Your task to perform on an android device: delete a single message in the gmail app Image 0: 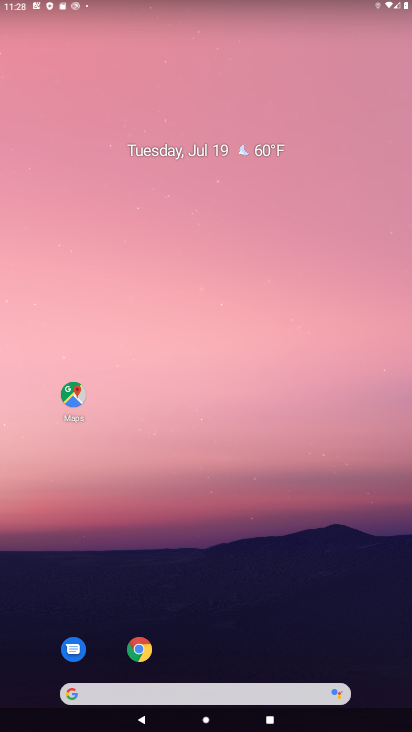
Step 0: drag from (195, 702) to (241, 166)
Your task to perform on an android device: delete a single message in the gmail app Image 1: 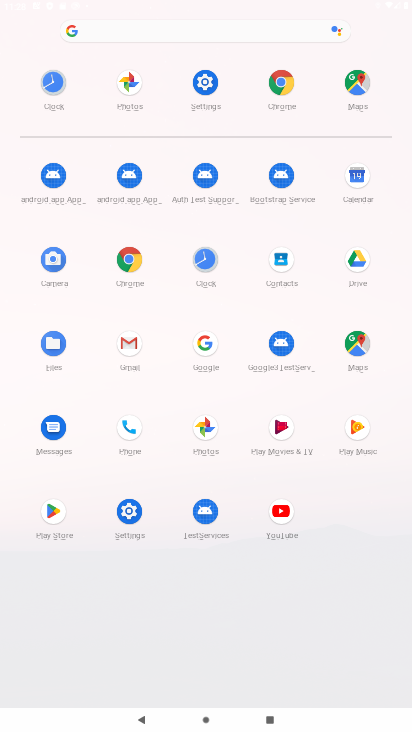
Step 1: click (125, 356)
Your task to perform on an android device: delete a single message in the gmail app Image 2: 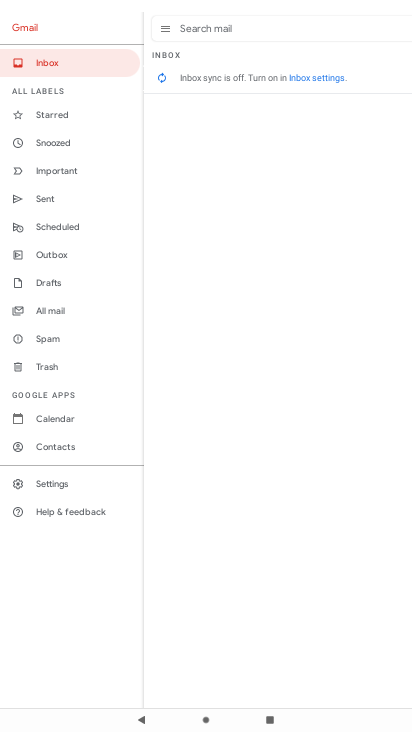
Step 2: click (43, 313)
Your task to perform on an android device: delete a single message in the gmail app Image 3: 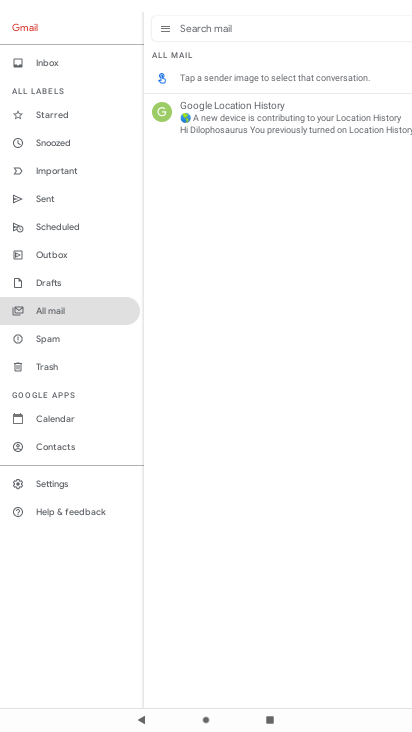
Step 3: click (165, 113)
Your task to perform on an android device: delete a single message in the gmail app Image 4: 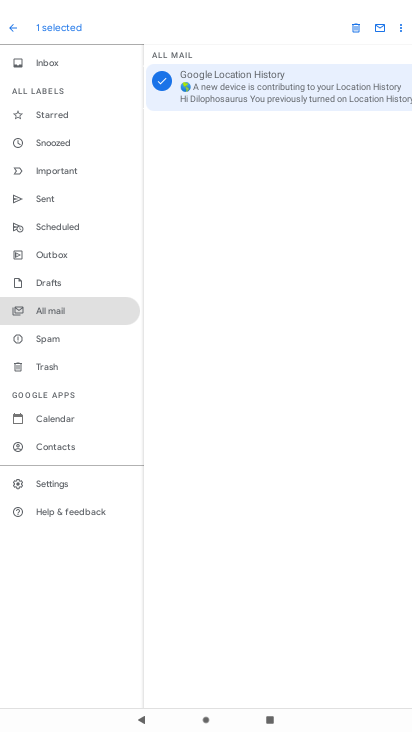
Step 4: click (358, 27)
Your task to perform on an android device: delete a single message in the gmail app Image 5: 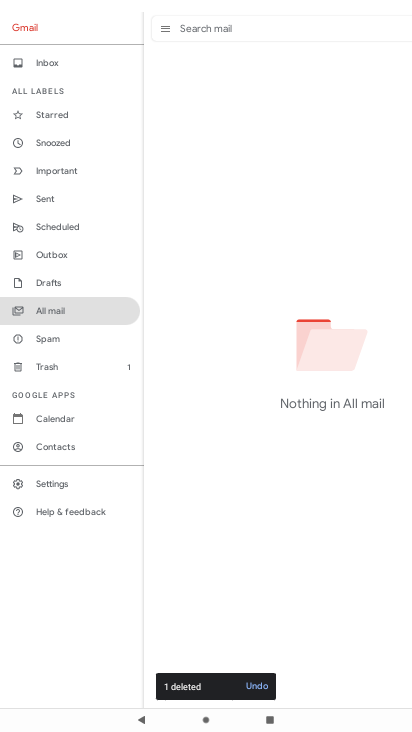
Step 5: task complete